Your task to perform on an android device: Add usb-c to the cart on ebay, then select checkout. Image 0: 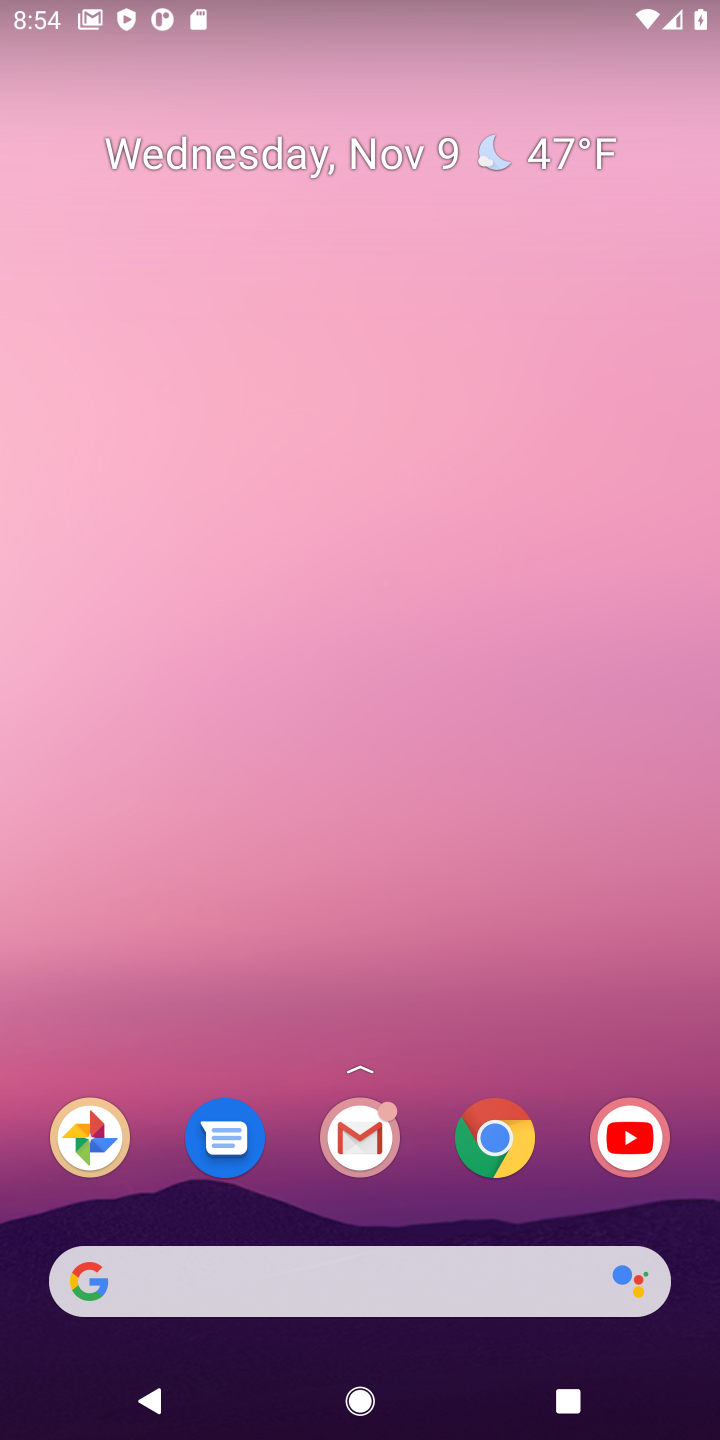
Step 0: click (622, 652)
Your task to perform on an android device: Add usb-c to the cart on ebay, then select checkout. Image 1: 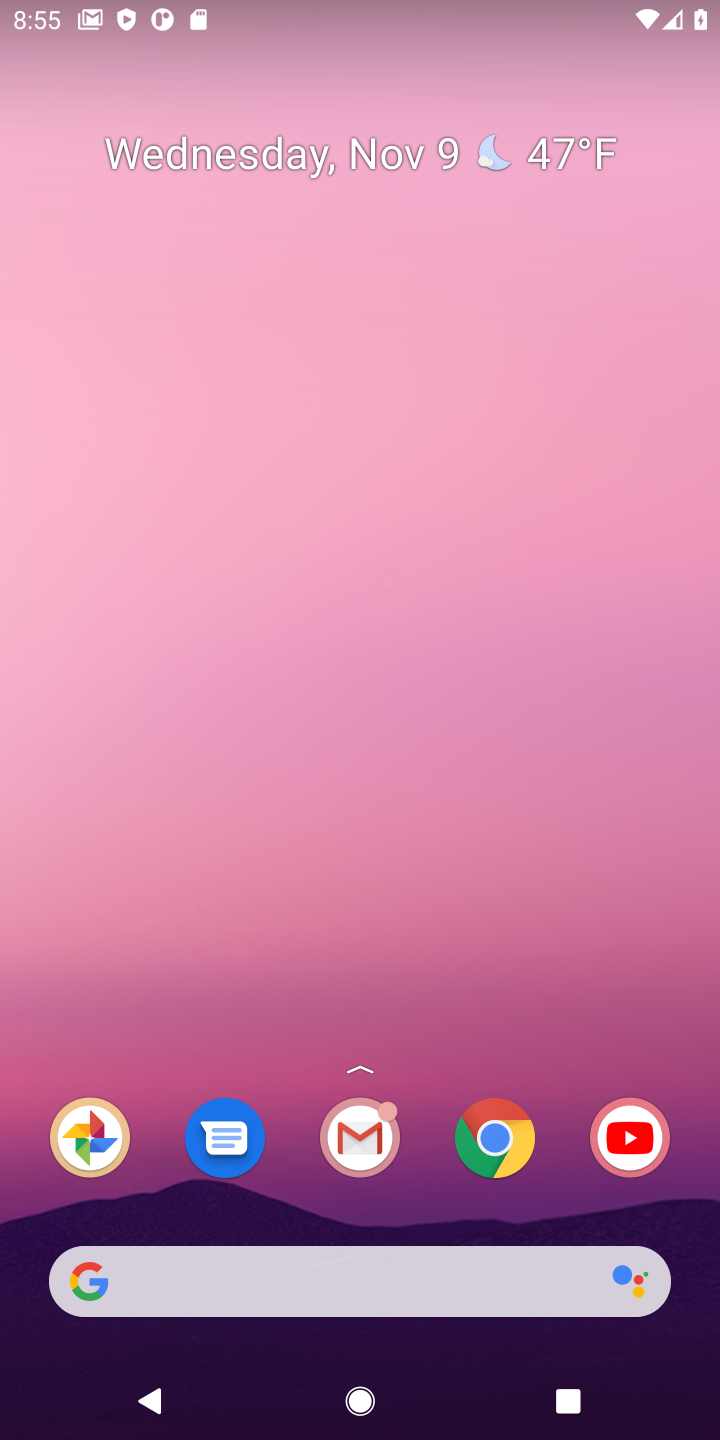
Step 1: drag from (426, 949) to (449, 74)
Your task to perform on an android device: Add usb-c to the cart on ebay, then select checkout. Image 2: 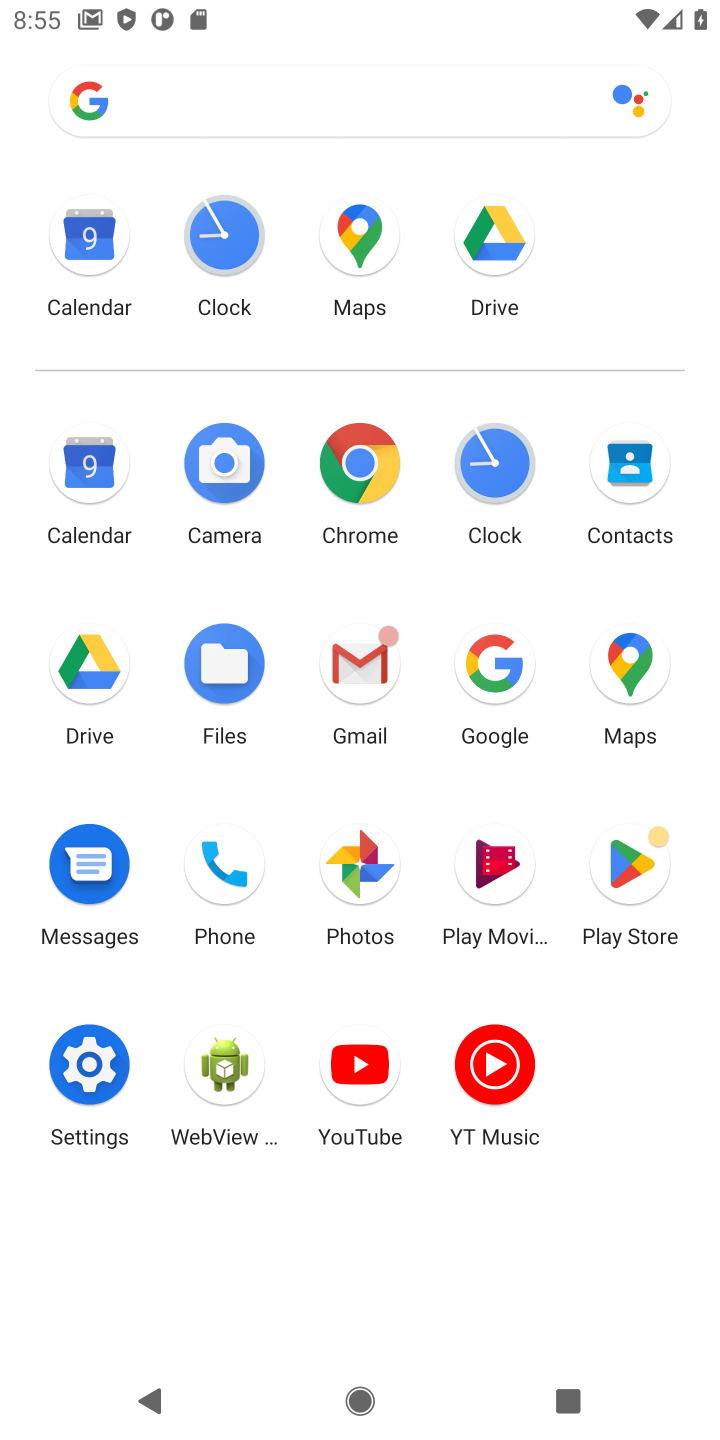
Step 2: click (350, 468)
Your task to perform on an android device: Add usb-c to the cart on ebay, then select checkout. Image 3: 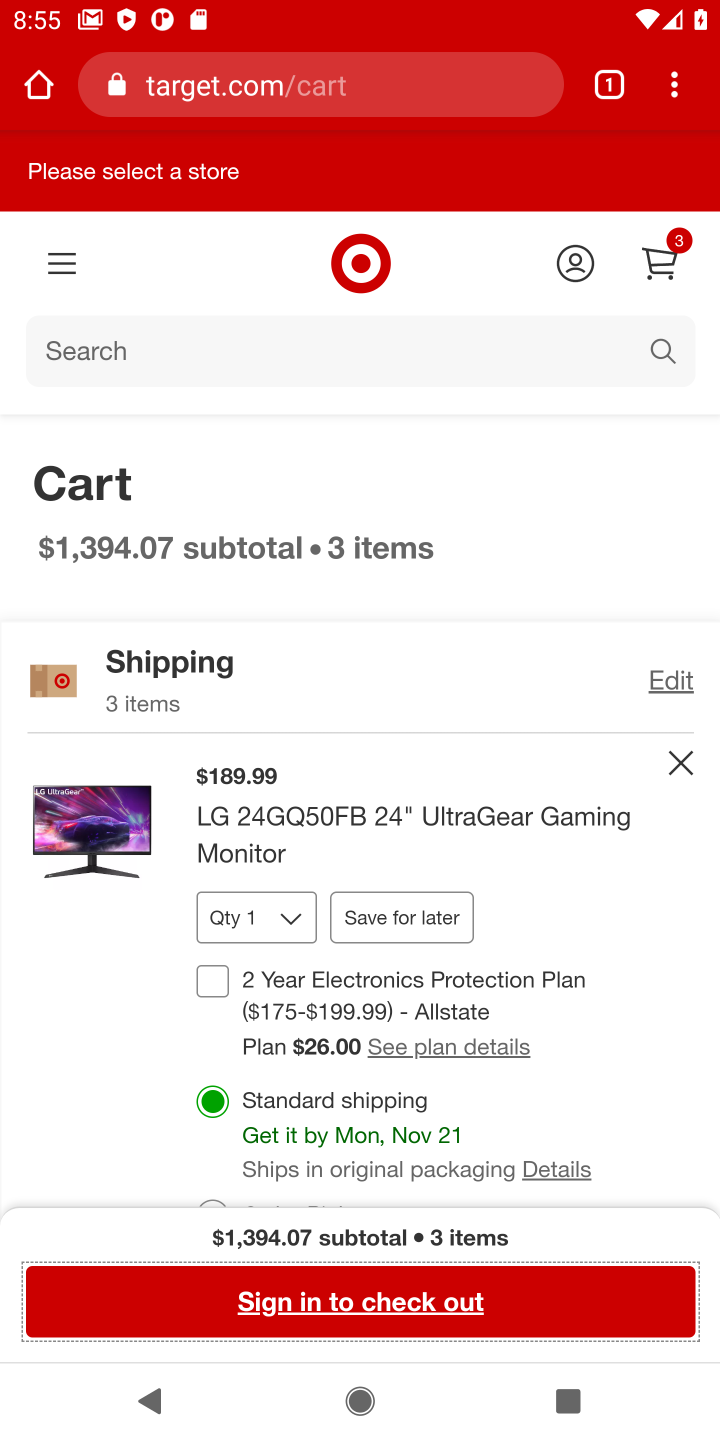
Step 3: click (236, 96)
Your task to perform on an android device: Add usb-c to the cart on ebay, then select checkout. Image 4: 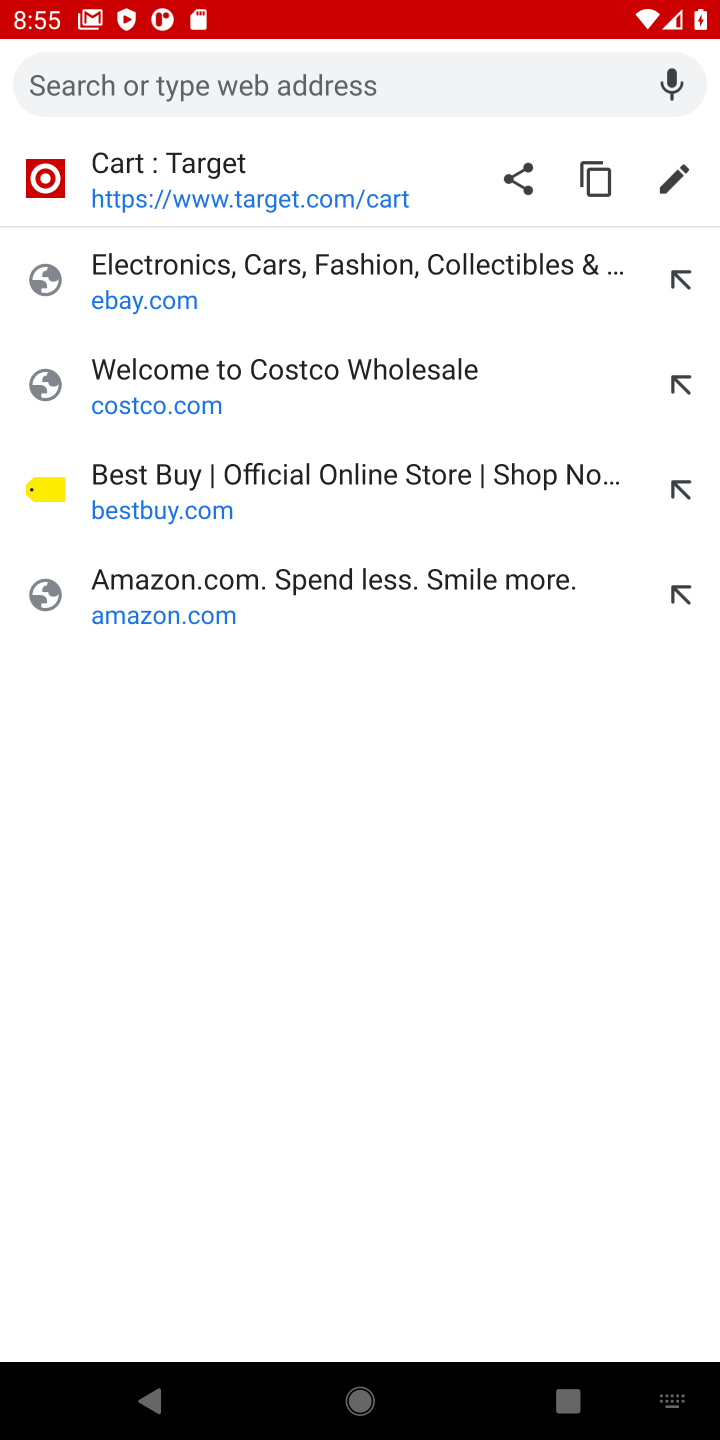
Step 4: type "ebay.com"
Your task to perform on an android device: Add usb-c to the cart on ebay, then select checkout. Image 5: 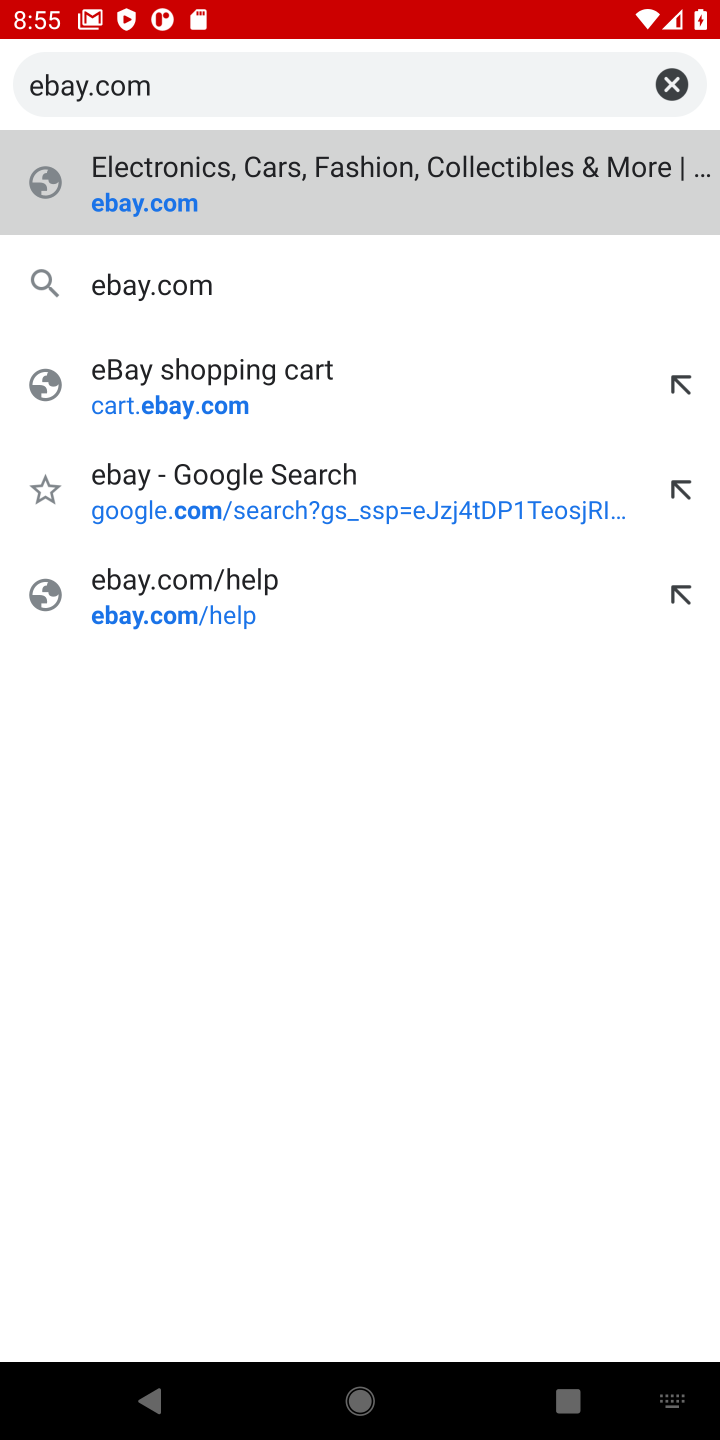
Step 5: press enter
Your task to perform on an android device: Add usb-c to the cart on ebay, then select checkout. Image 6: 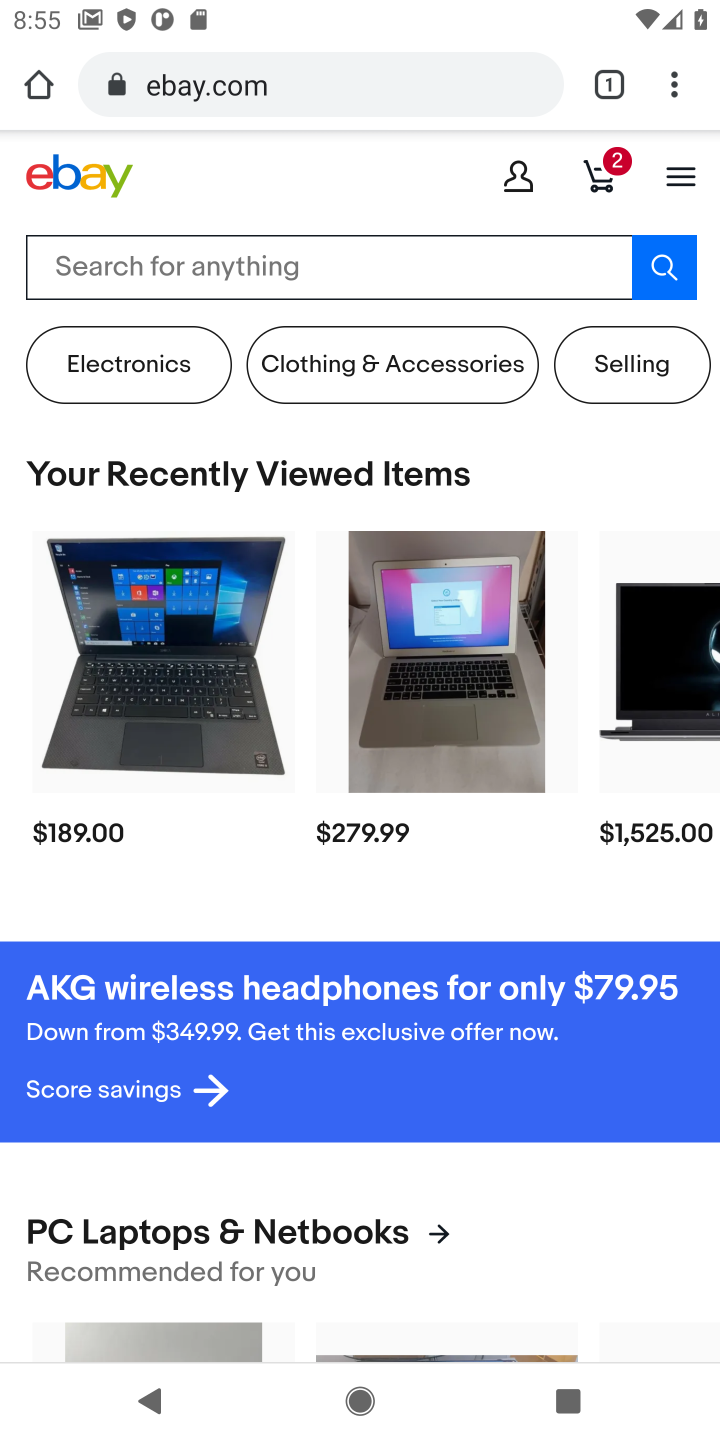
Step 6: drag from (357, 852) to (378, 43)
Your task to perform on an android device: Add usb-c to the cart on ebay, then select checkout. Image 7: 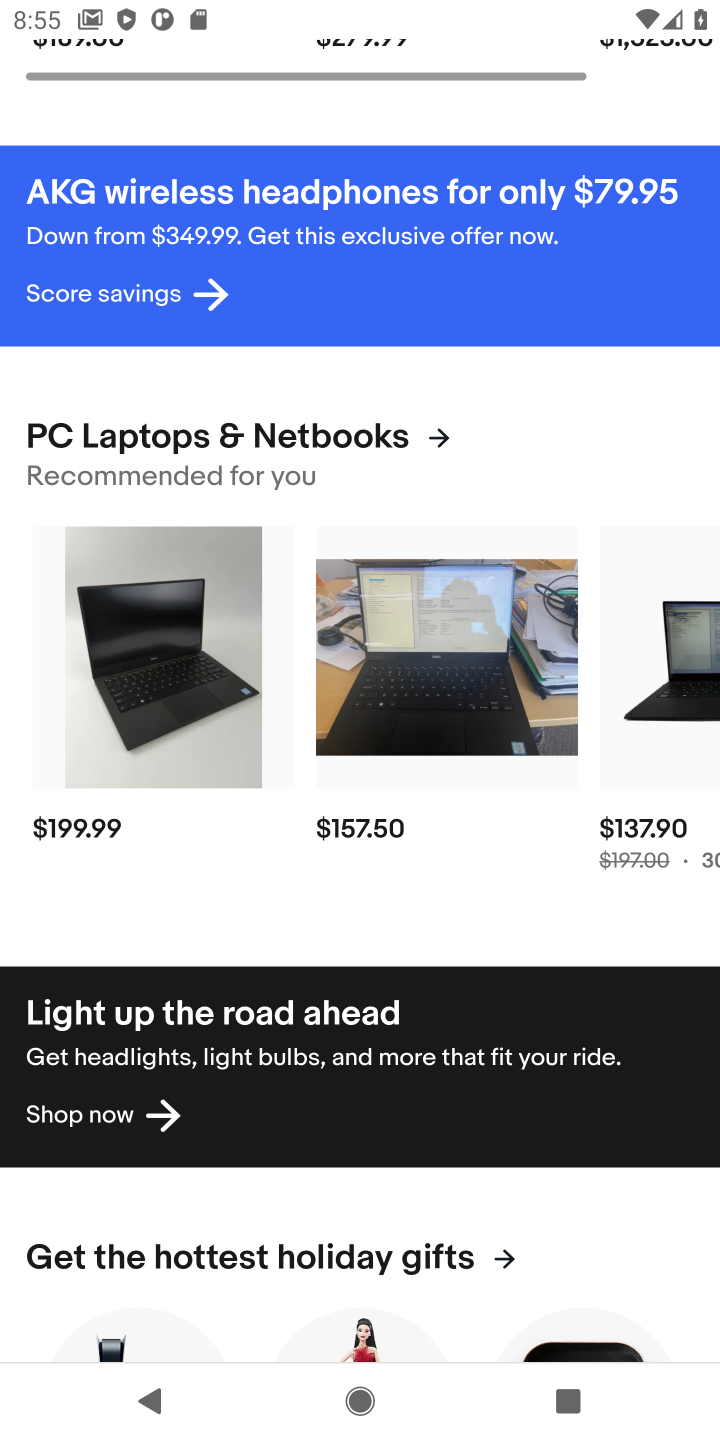
Step 7: drag from (425, 293) to (341, 1121)
Your task to perform on an android device: Add usb-c to the cart on ebay, then select checkout. Image 8: 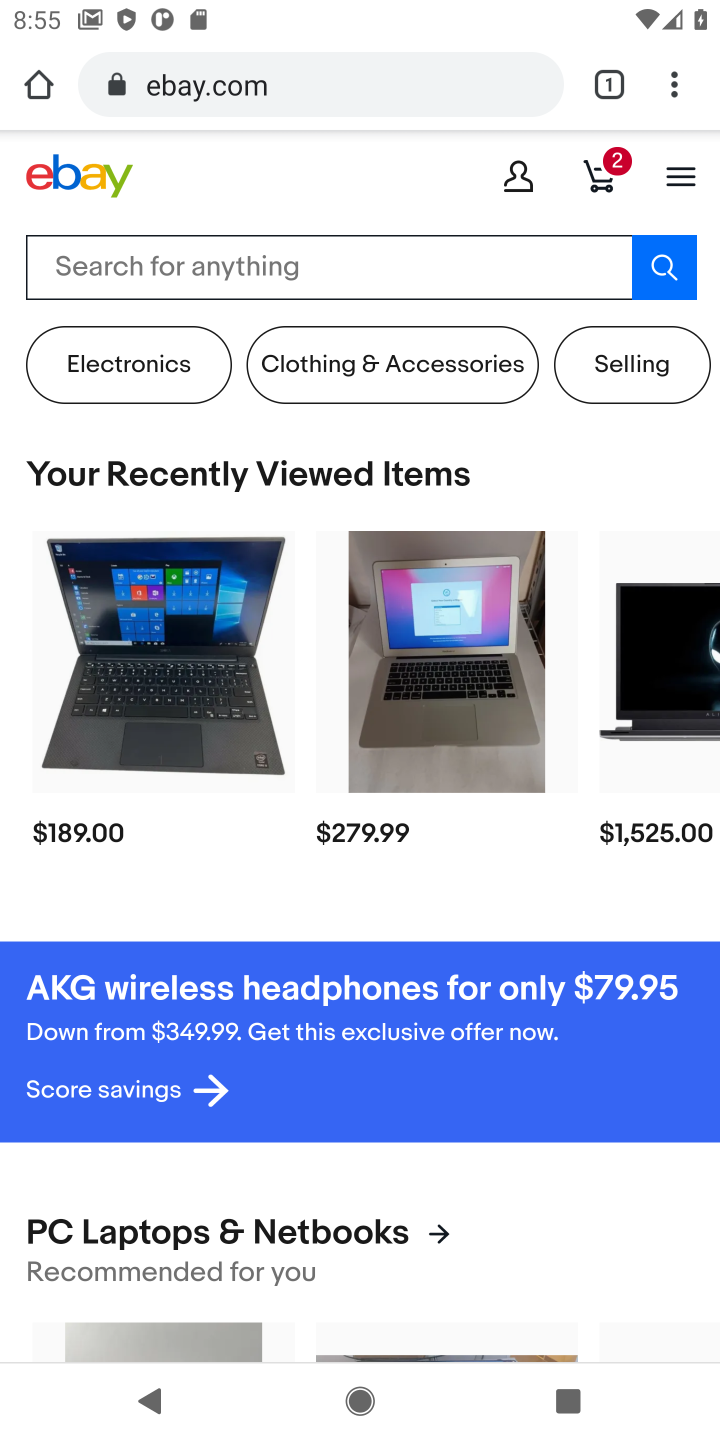
Step 8: click (422, 277)
Your task to perform on an android device: Add usb-c to the cart on ebay, then select checkout. Image 9: 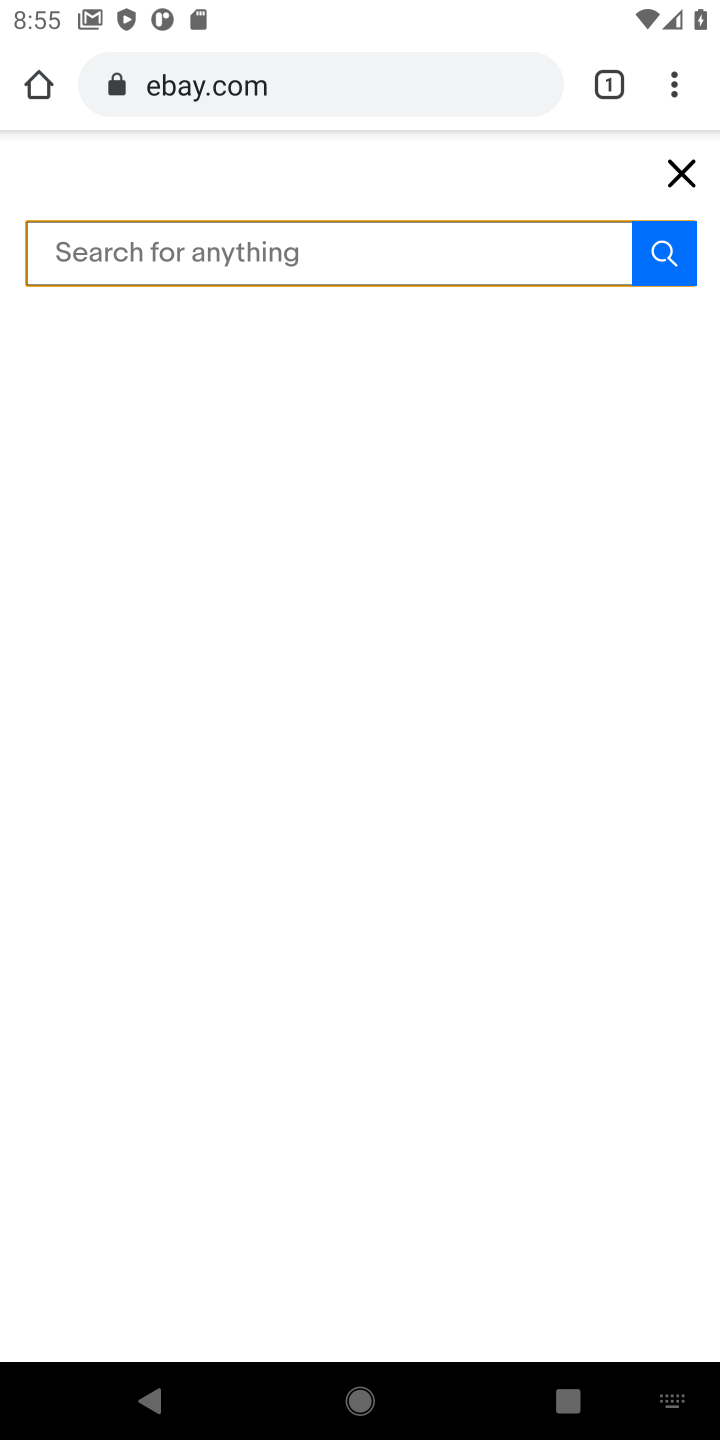
Step 9: type "usb-c"
Your task to perform on an android device: Add usb-c to the cart on ebay, then select checkout. Image 10: 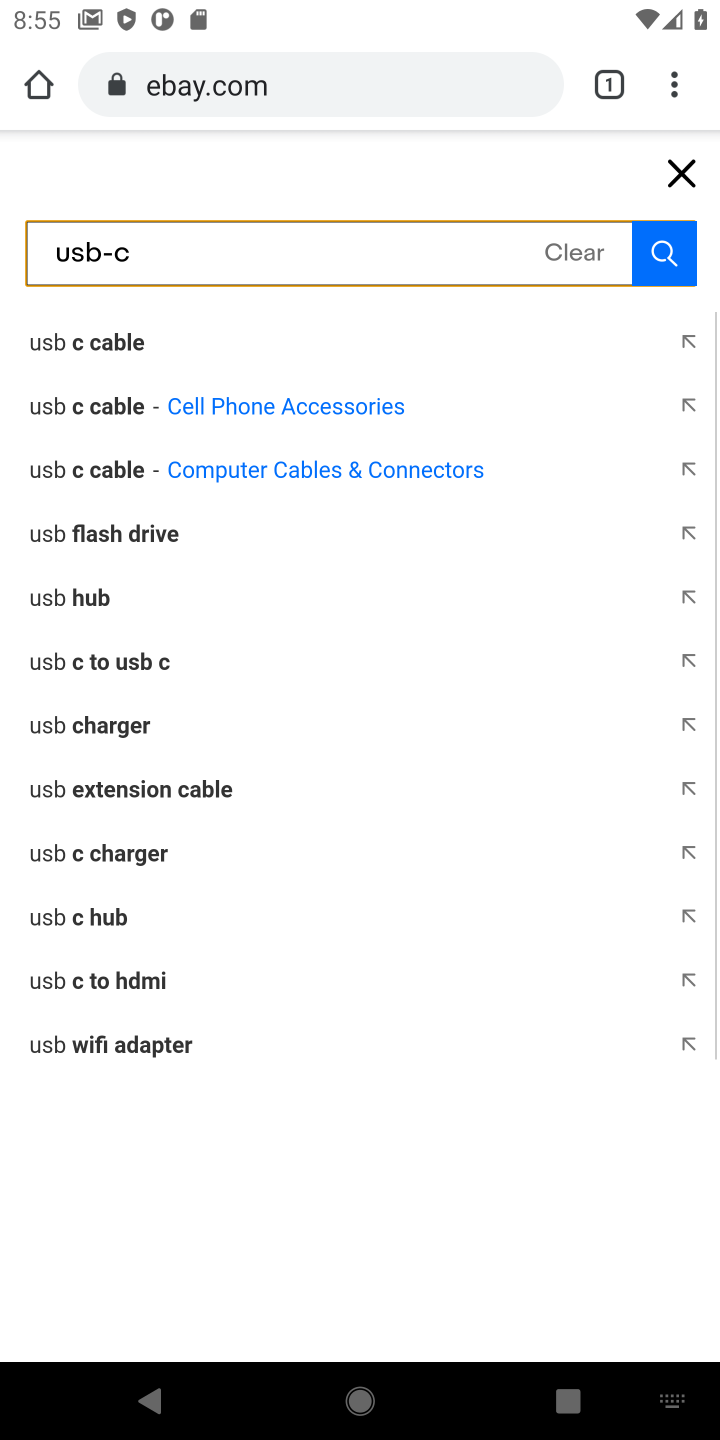
Step 10: press enter
Your task to perform on an android device: Add usb-c to the cart on ebay, then select checkout. Image 11: 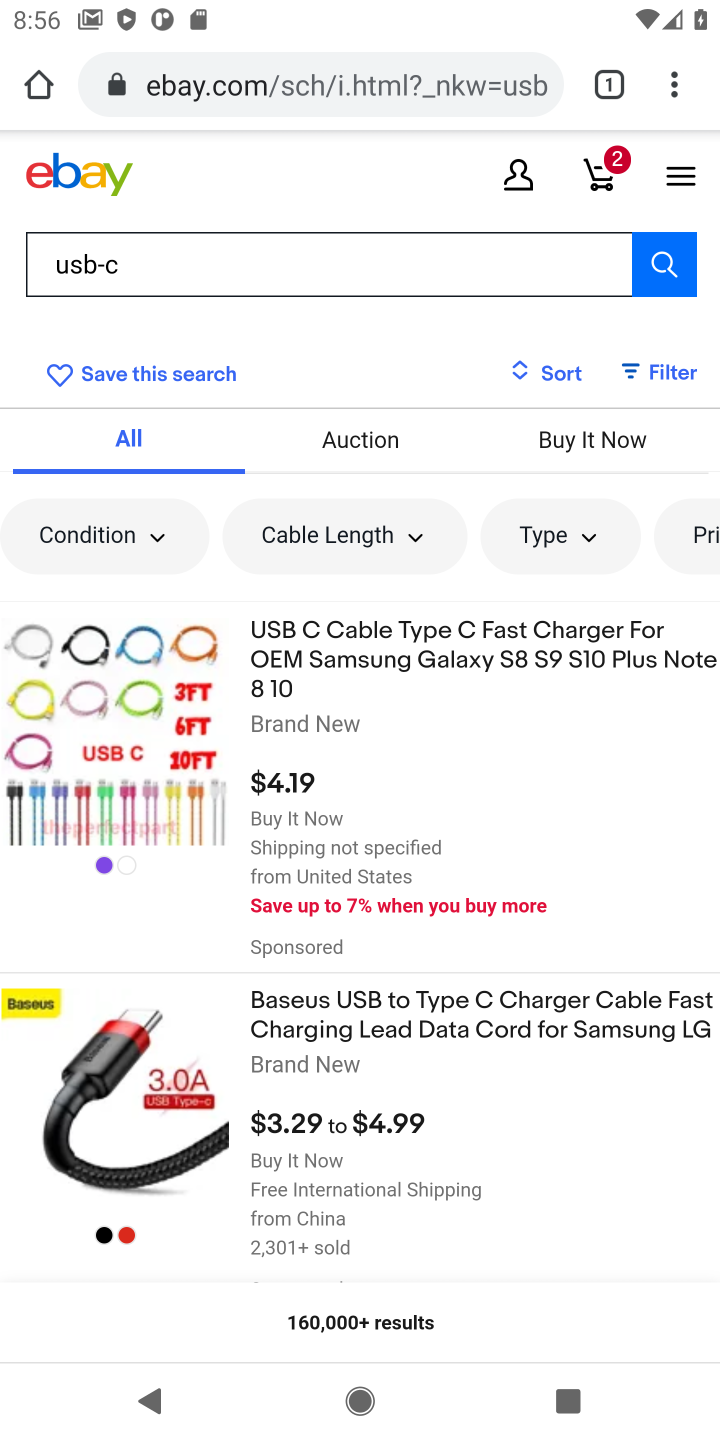
Step 11: click (140, 758)
Your task to perform on an android device: Add usb-c to the cart on ebay, then select checkout. Image 12: 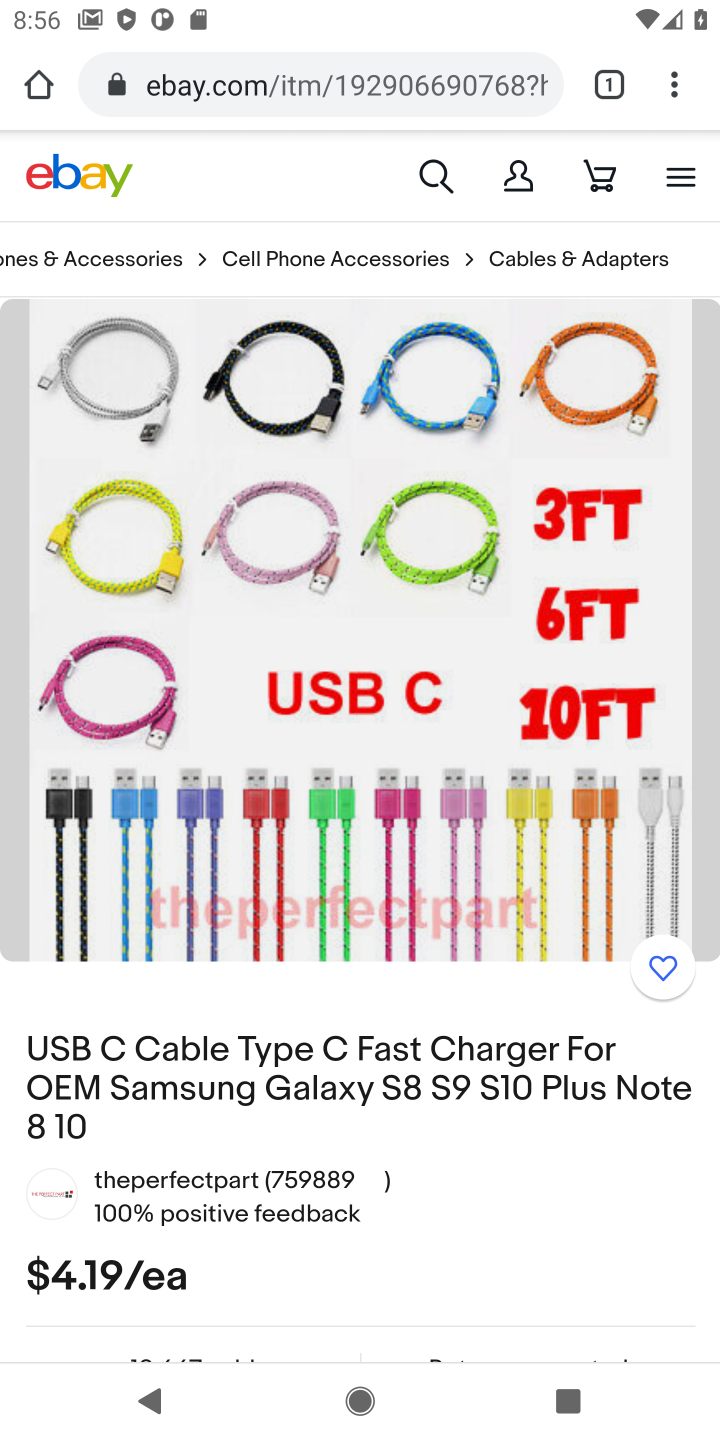
Step 12: drag from (430, 1144) to (243, 0)
Your task to perform on an android device: Add usb-c to the cart on ebay, then select checkout. Image 13: 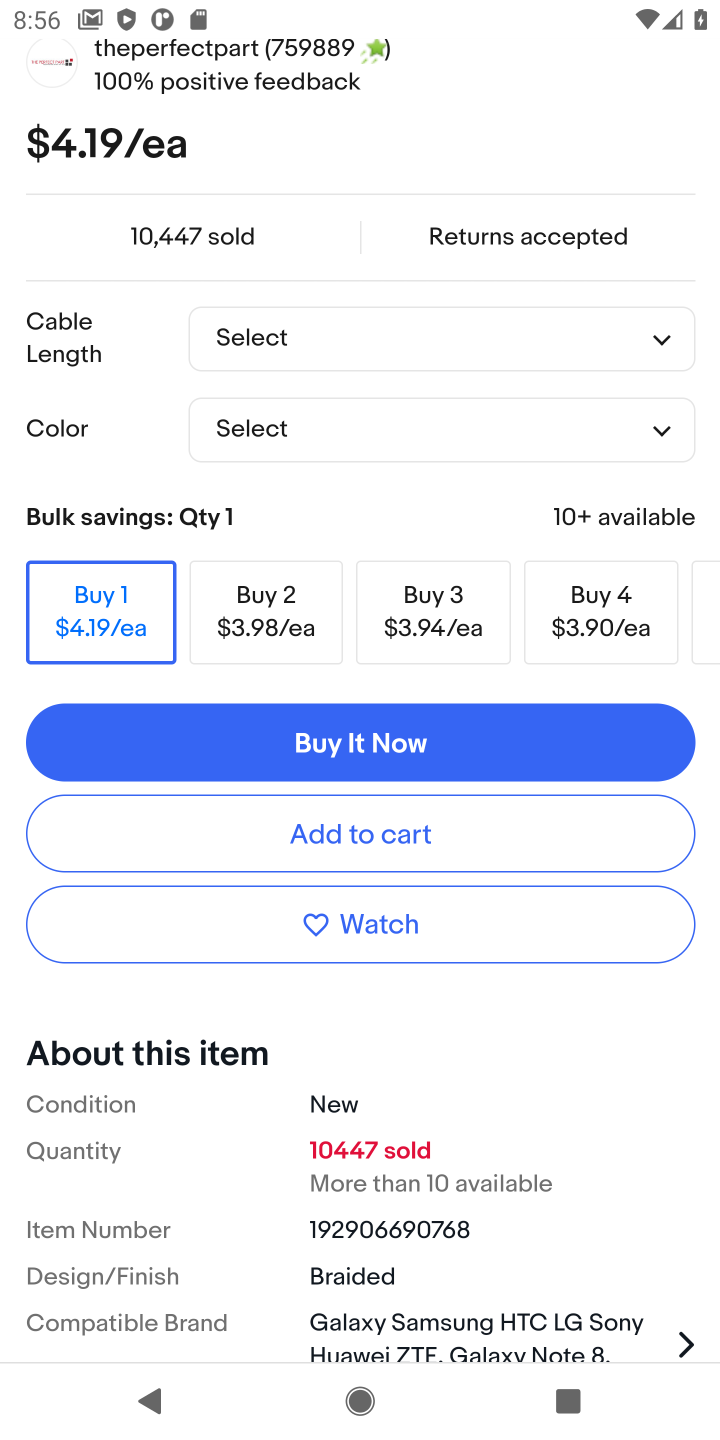
Step 13: drag from (344, 1070) to (410, 388)
Your task to perform on an android device: Add usb-c to the cart on ebay, then select checkout. Image 14: 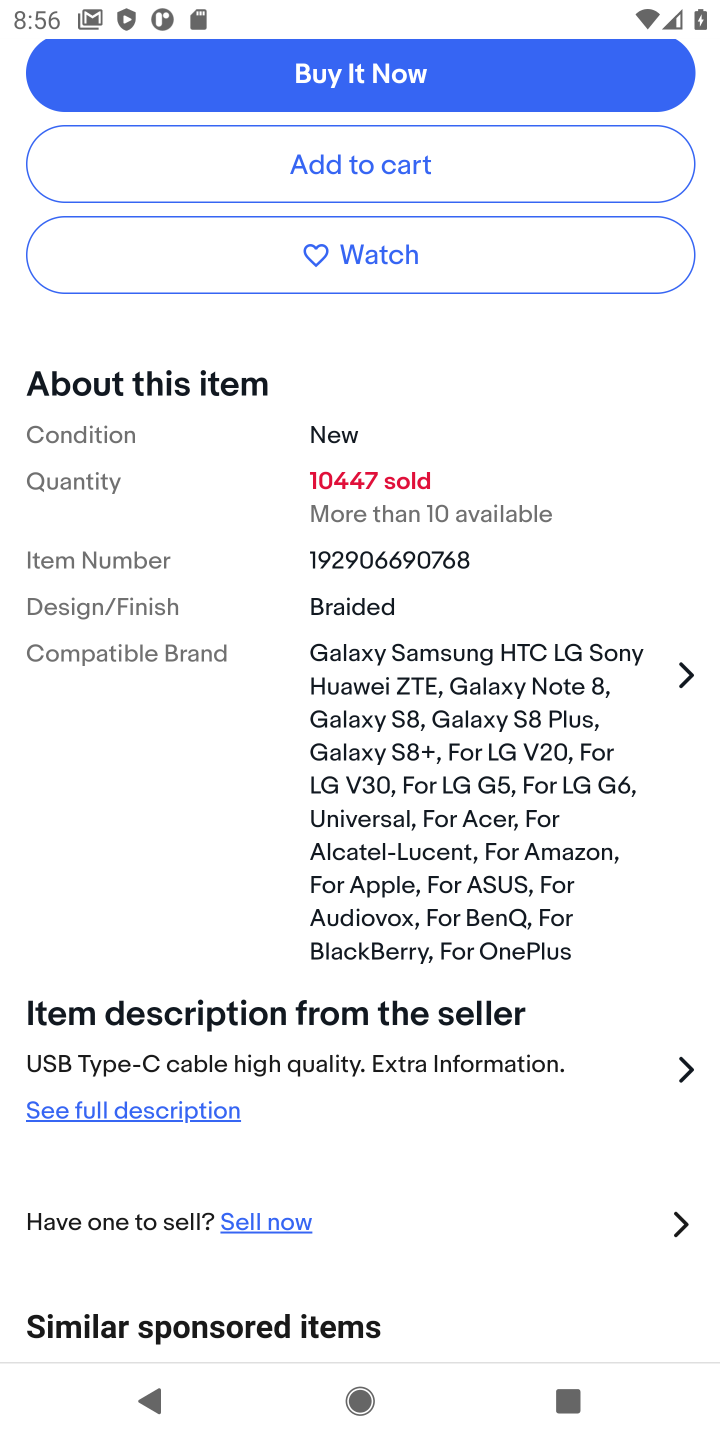
Step 14: click (378, 181)
Your task to perform on an android device: Add usb-c to the cart on ebay, then select checkout. Image 15: 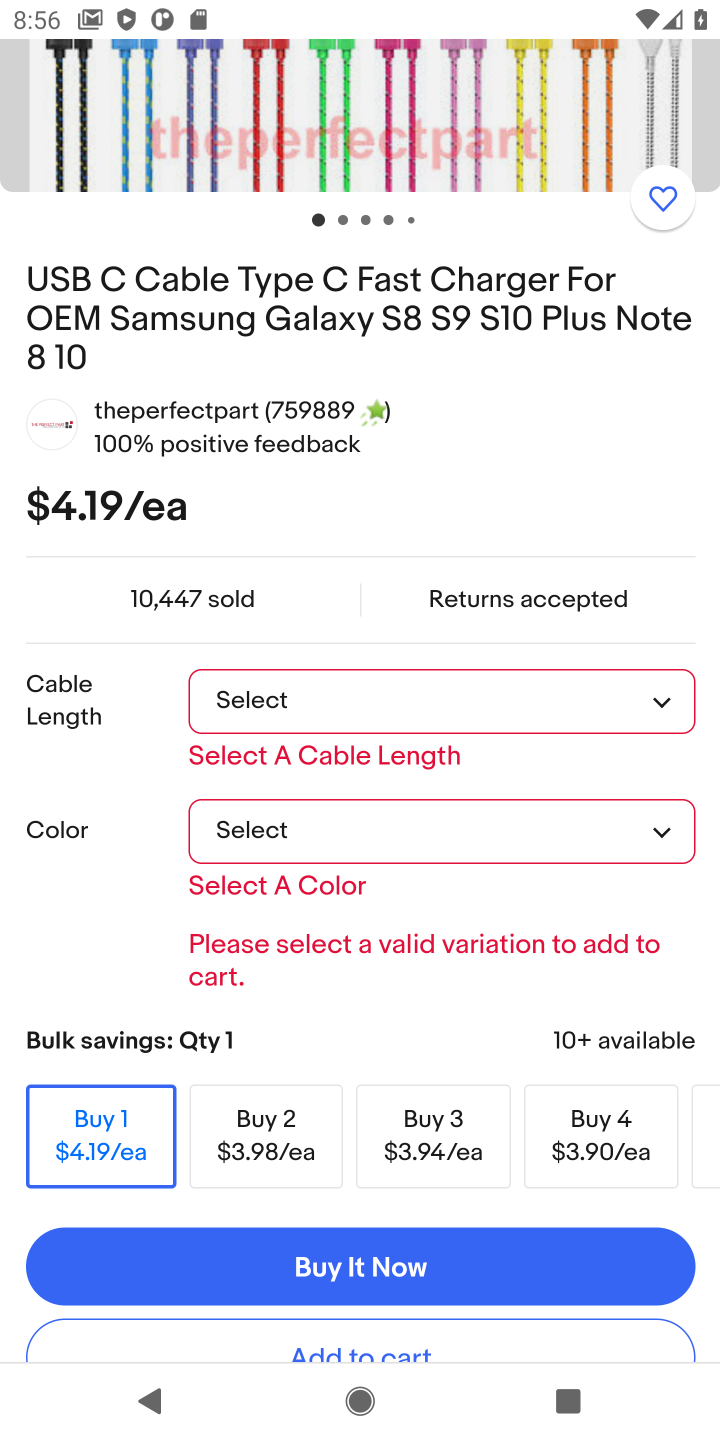
Step 15: drag from (463, 1150) to (490, 722)
Your task to perform on an android device: Add usb-c to the cart on ebay, then select checkout. Image 16: 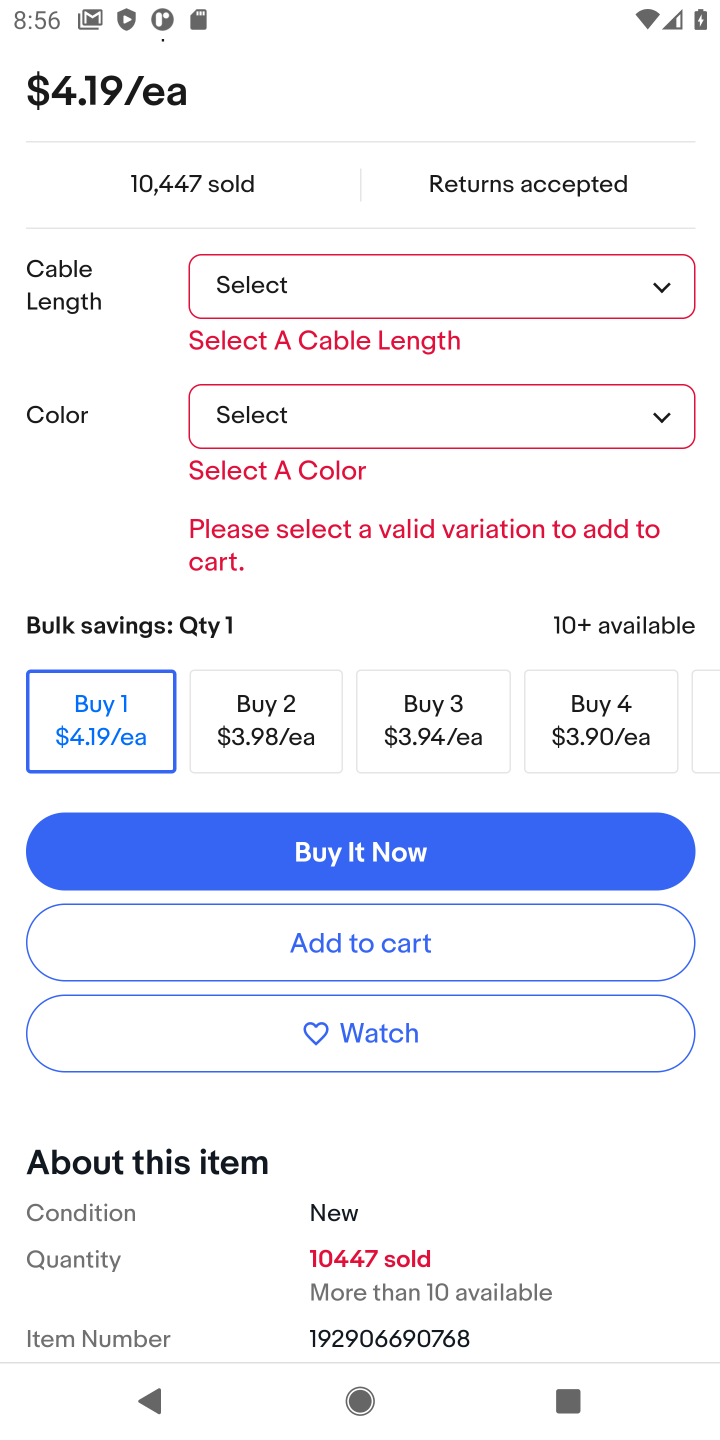
Step 16: click (507, 312)
Your task to perform on an android device: Add usb-c to the cart on ebay, then select checkout. Image 17: 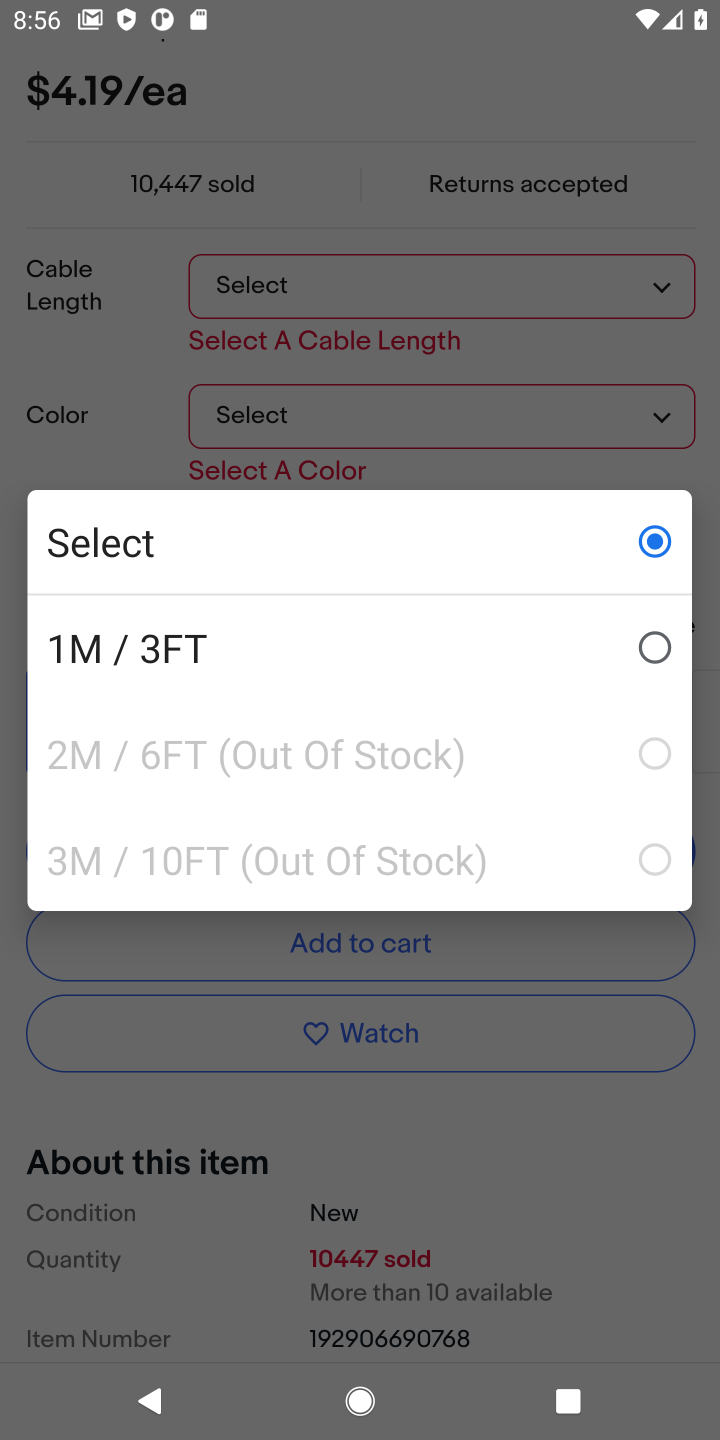
Step 17: click (343, 659)
Your task to perform on an android device: Add usb-c to the cart on ebay, then select checkout. Image 18: 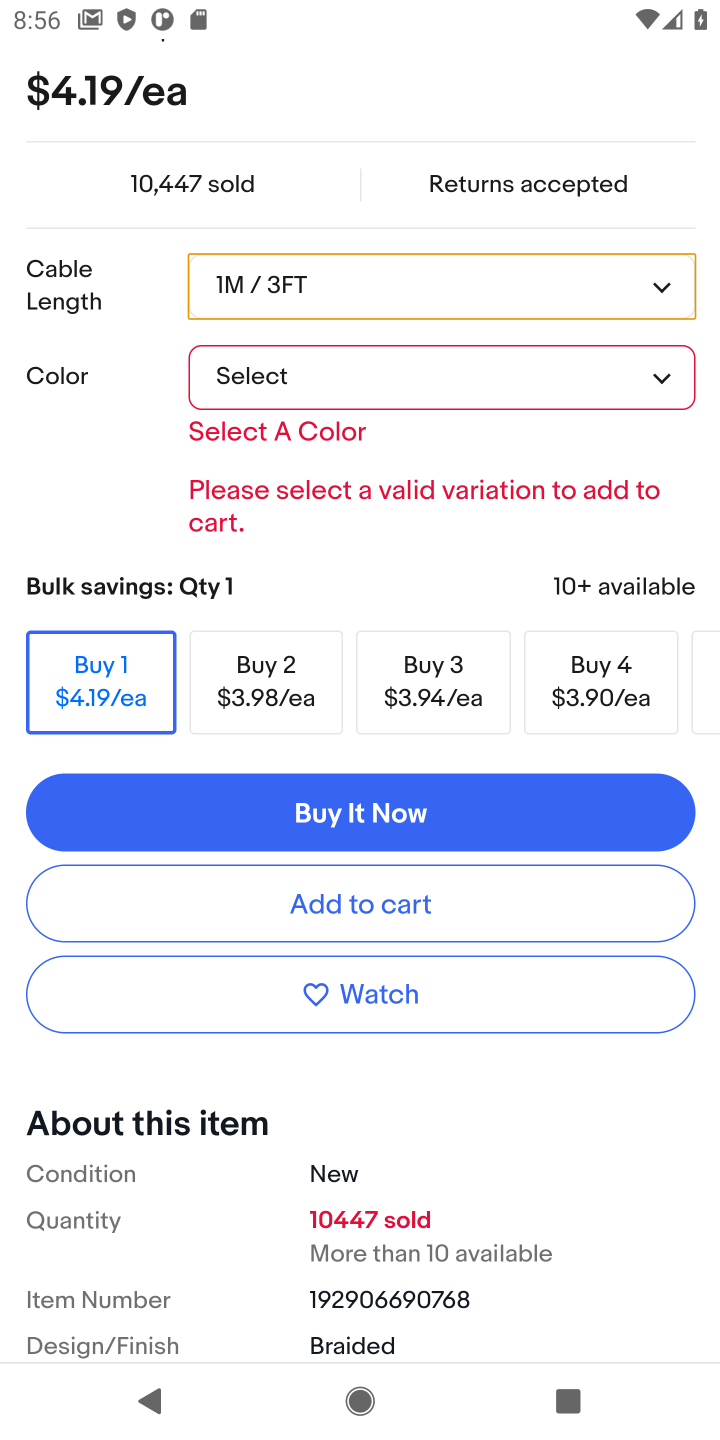
Step 18: click (513, 406)
Your task to perform on an android device: Add usb-c to the cart on ebay, then select checkout. Image 19: 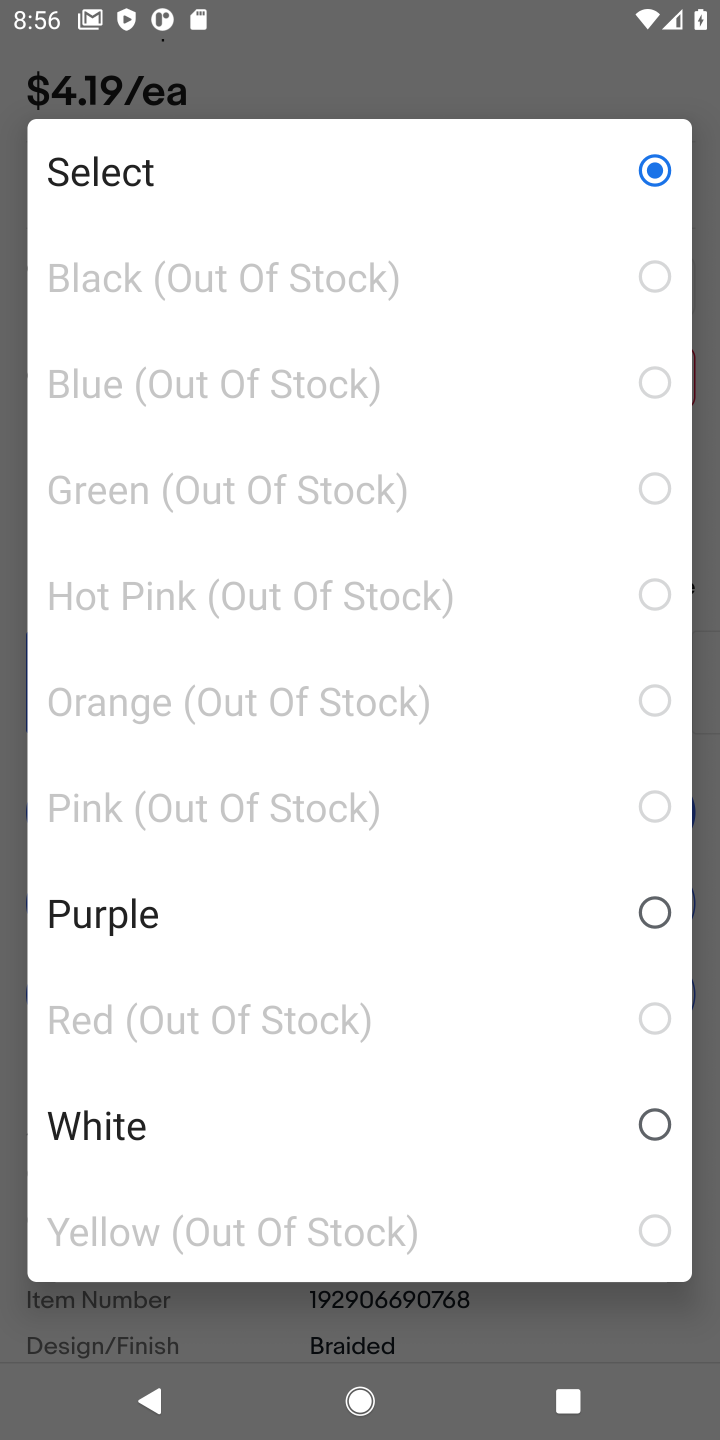
Step 19: click (305, 892)
Your task to perform on an android device: Add usb-c to the cart on ebay, then select checkout. Image 20: 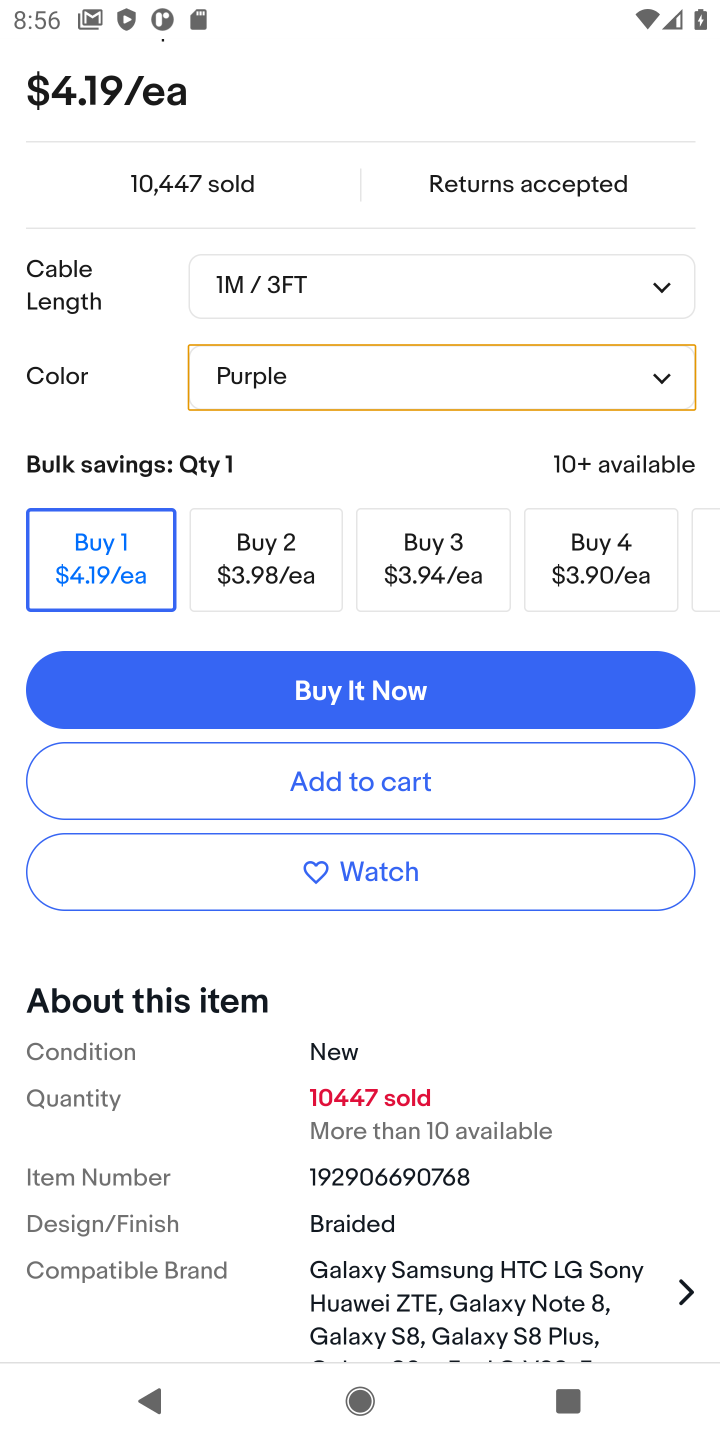
Step 20: click (330, 790)
Your task to perform on an android device: Add usb-c to the cart on ebay, then select checkout. Image 21: 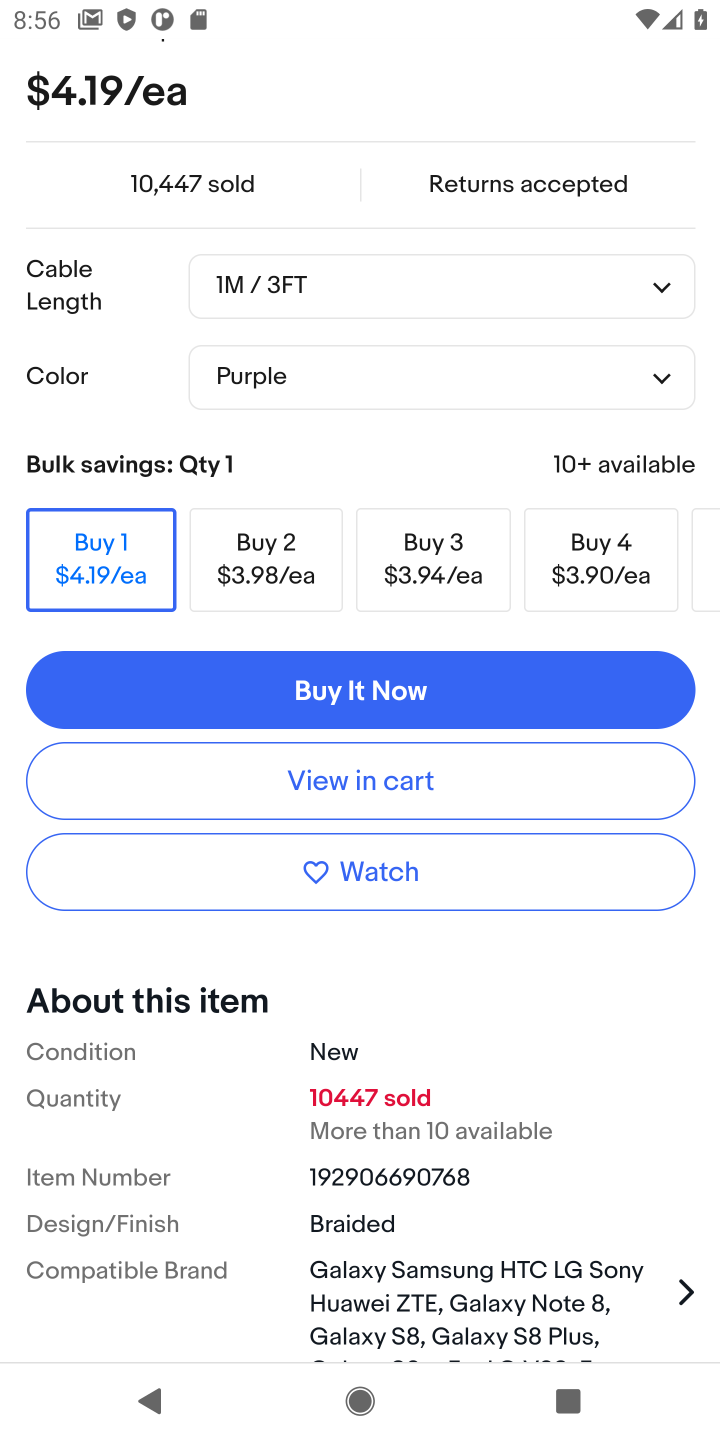
Step 21: click (330, 790)
Your task to perform on an android device: Add usb-c to the cart on ebay, then select checkout. Image 22: 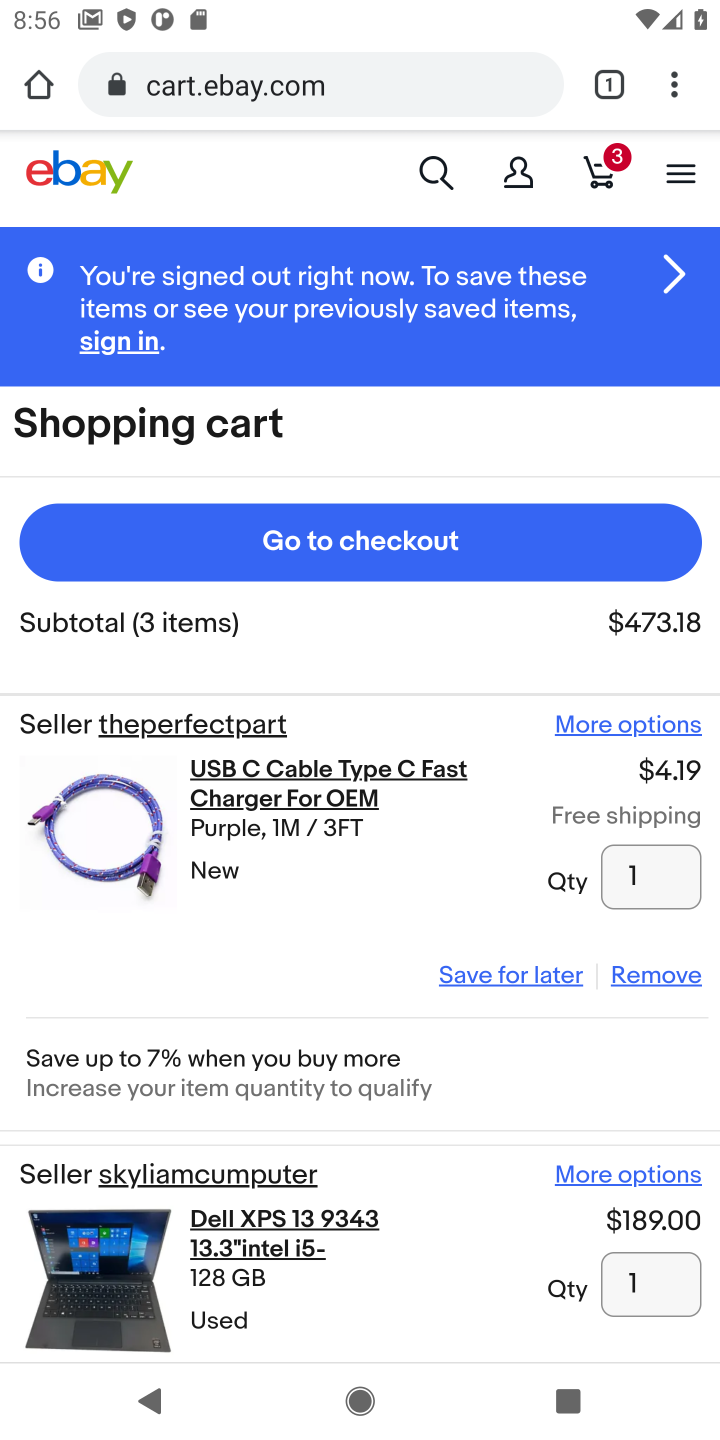
Step 22: click (442, 510)
Your task to perform on an android device: Add usb-c to the cart on ebay, then select checkout. Image 23: 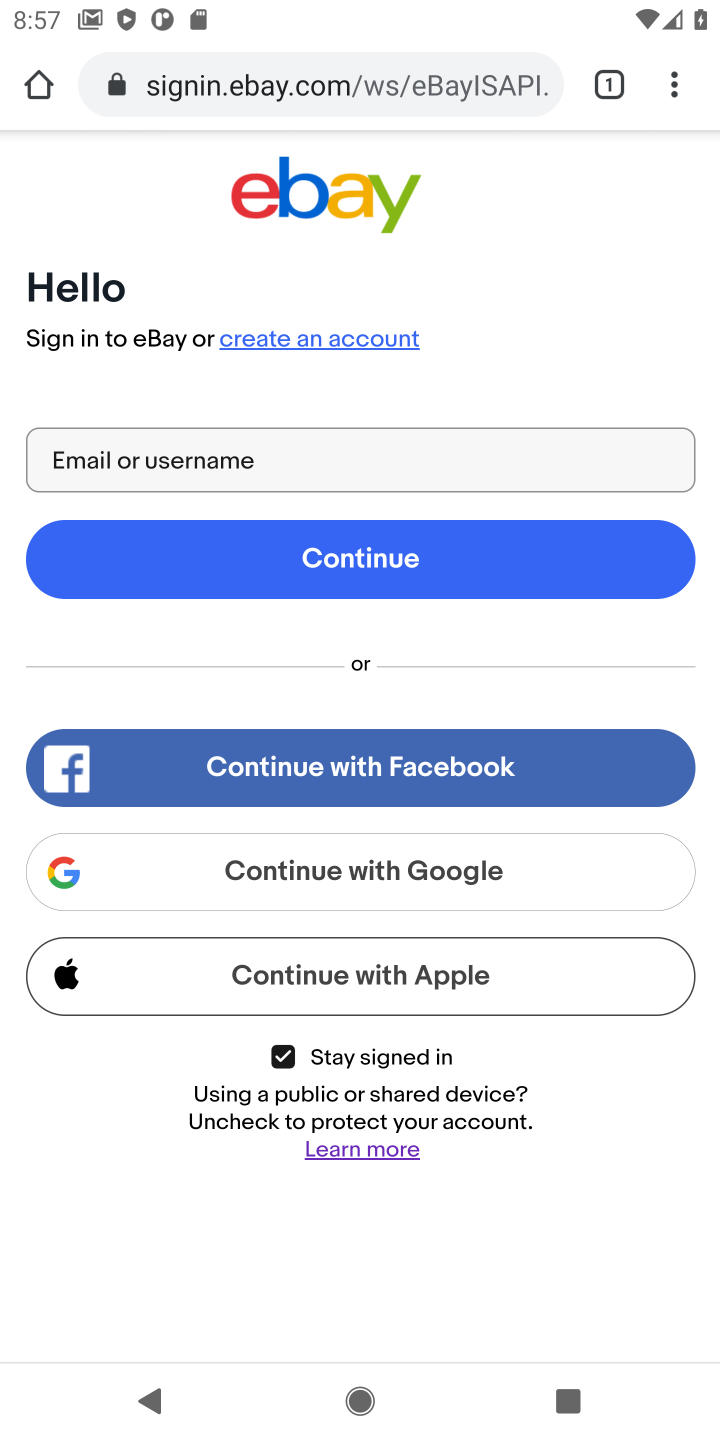
Step 23: task complete